Your task to perform on an android device: change the upload size in google photos Image 0: 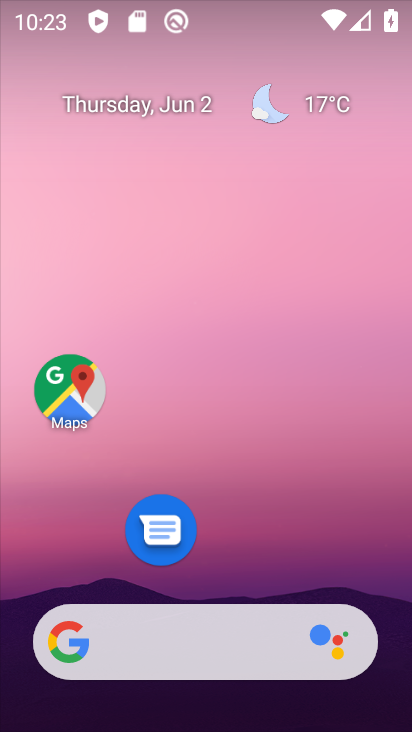
Step 0: click (253, 223)
Your task to perform on an android device: change the upload size in google photos Image 1: 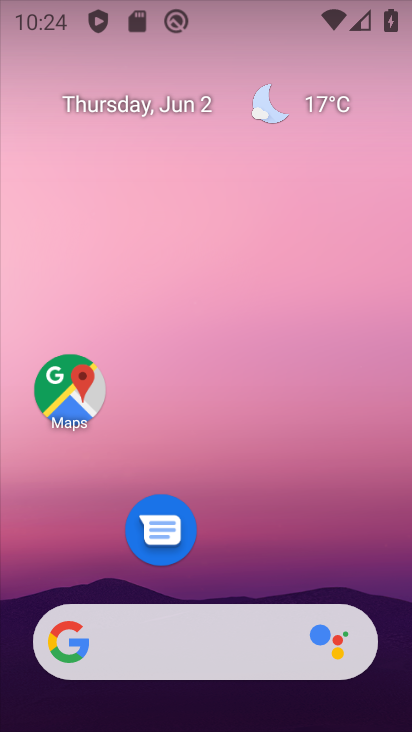
Step 1: drag from (238, 694) to (189, 95)
Your task to perform on an android device: change the upload size in google photos Image 2: 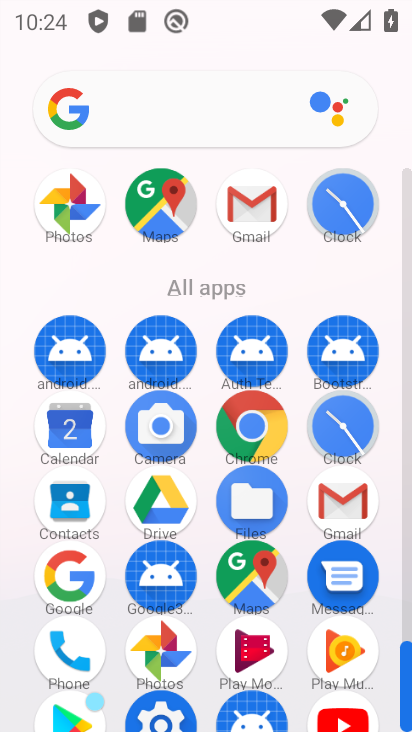
Step 2: click (61, 197)
Your task to perform on an android device: change the upload size in google photos Image 3: 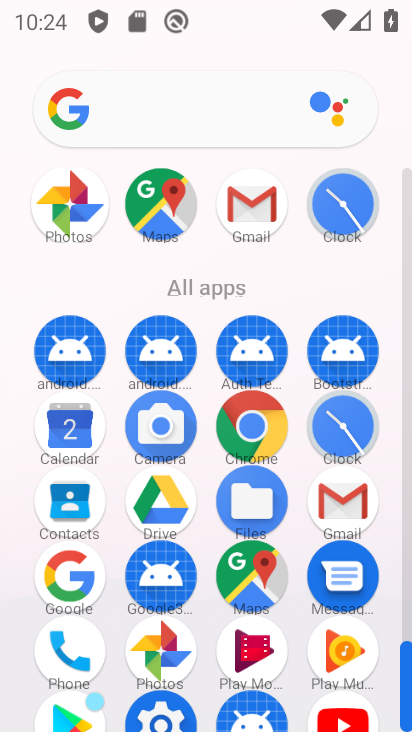
Step 3: drag from (61, 197) to (52, 232)
Your task to perform on an android device: change the upload size in google photos Image 4: 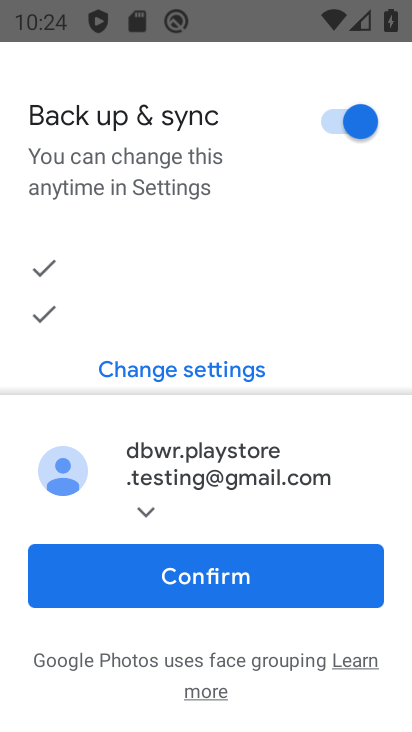
Step 4: click (244, 567)
Your task to perform on an android device: change the upload size in google photos Image 5: 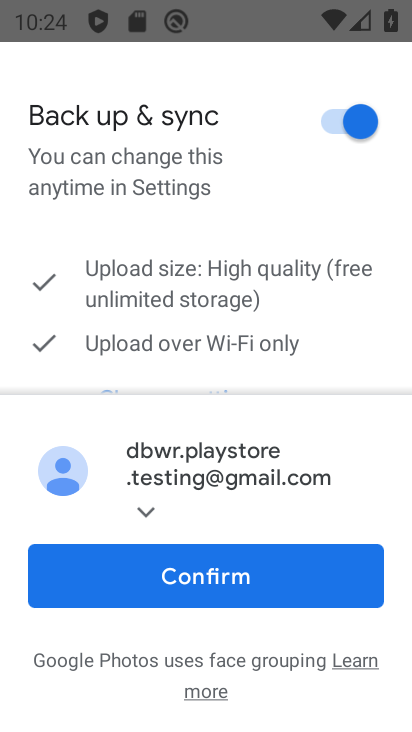
Step 5: click (238, 576)
Your task to perform on an android device: change the upload size in google photos Image 6: 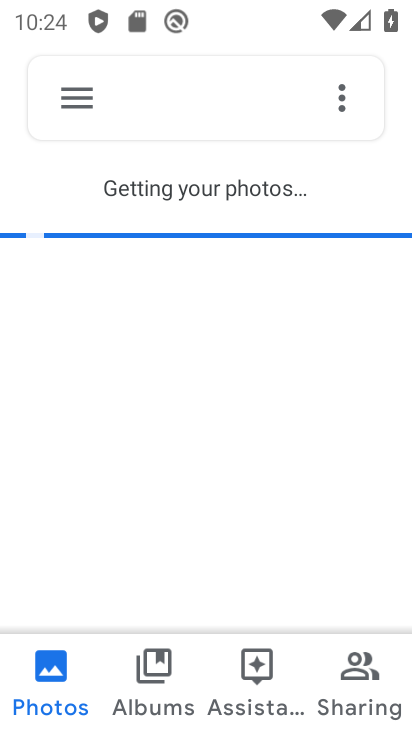
Step 6: click (217, 567)
Your task to perform on an android device: change the upload size in google photos Image 7: 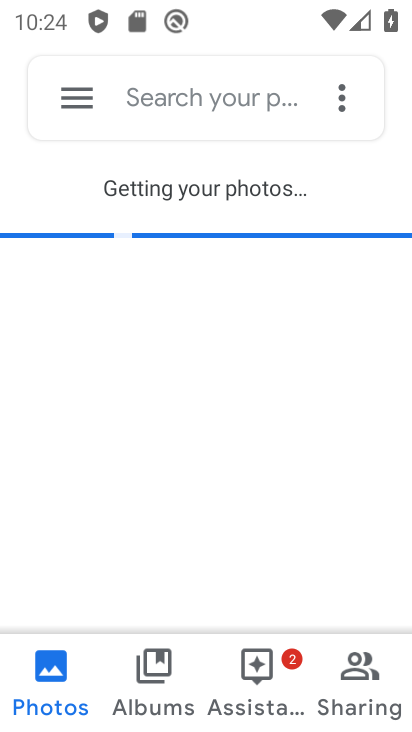
Step 7: click (79, 101)
Your task to perform on an android device: change the upload size in google photos Image 8: 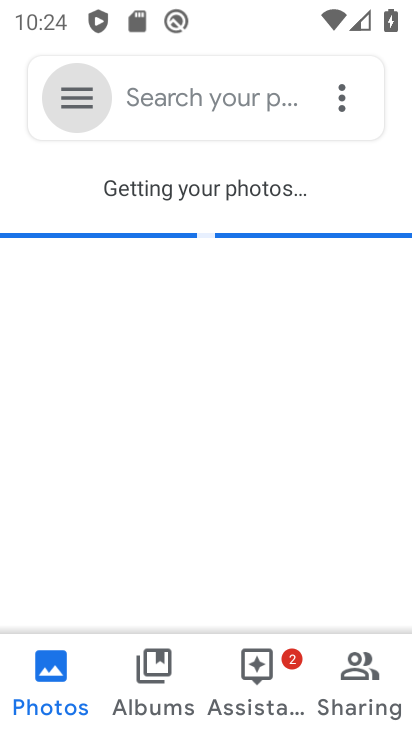
Step 8: click (80, 103)
Your task to perform on an android device: change the upload size in google photos Image 9: 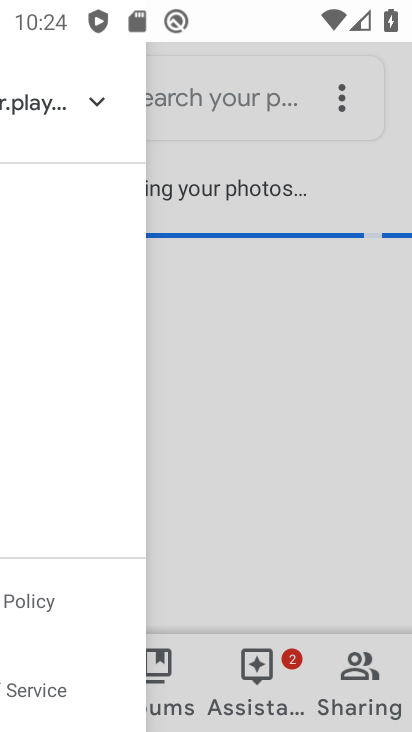
Step 9: drag from (80, 103) to (407, 520)
Your task to perform on an android device: change the upload size in google photos Image 10: 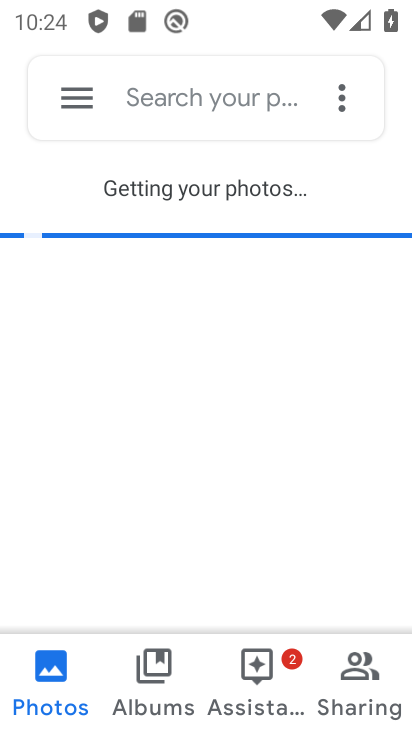
Step 10: click (76, 104)
Your task to perform on an android device: change the upload size in google photos Image 11: 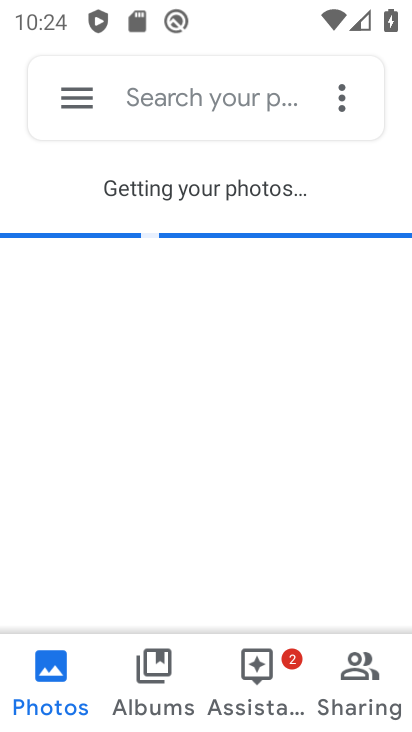
Step 11: click (80, 99)
Your task to perform on an android device: change the upload size in google photos Image 12: 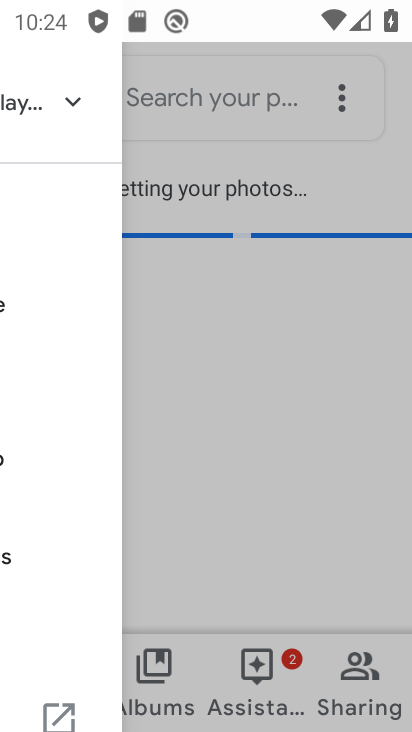
Step 12: click (81, 95)
Your task to perform on an android device: change the upload size in google photos Image 13: 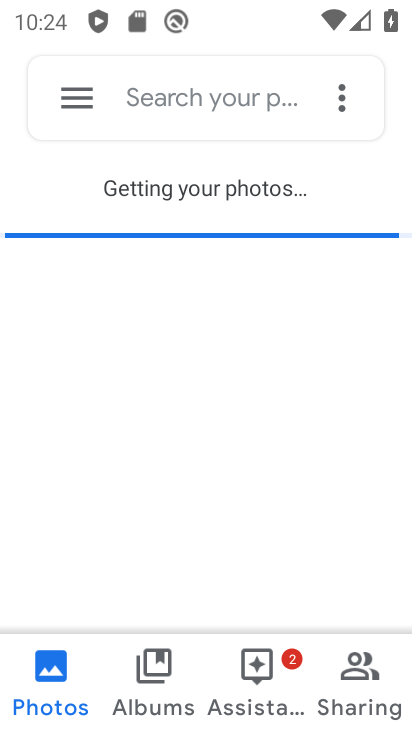
Step 13: click (86, 89)
Your task to perform on an android device: change the upload size in google photos Image 14: 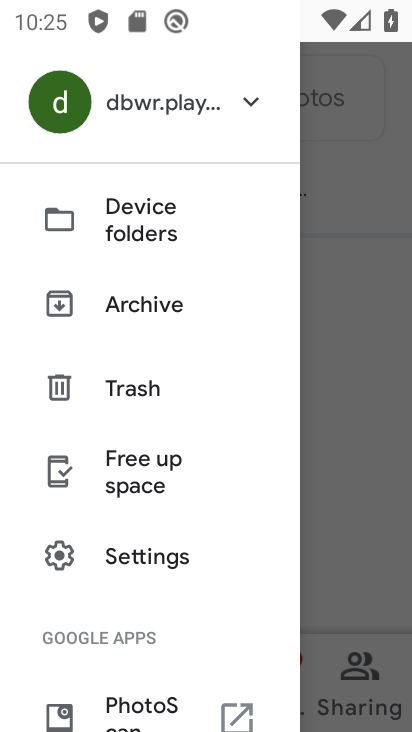
Step 14: click (78, 95)
Your task to perform on an android device: change the upload size in google photos Image 15: 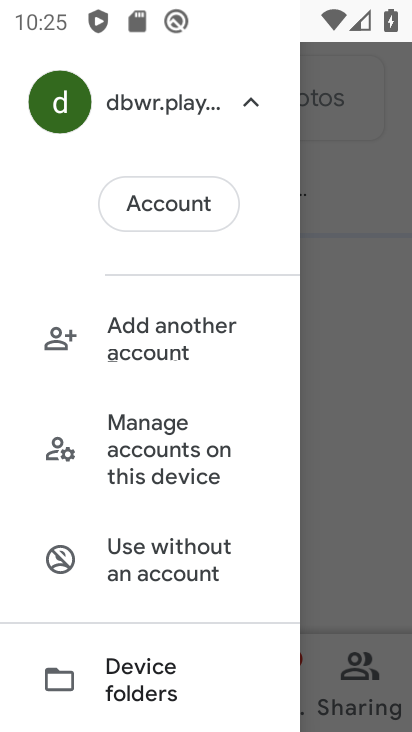
Step 15: drag from (202, 266) to (235, 509)
Your task to perform on an android device: change the upload size in google photos Image 16: 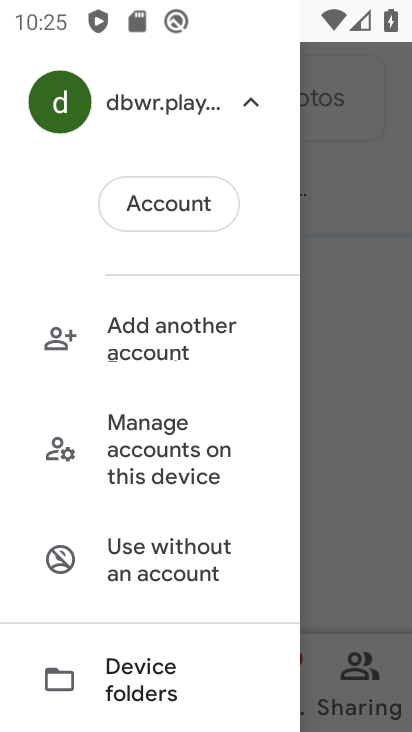
Step 16: drag from (235, 338) to (267, 544)
Your task to perform on an android device: change the upload size in google photos Image 17: 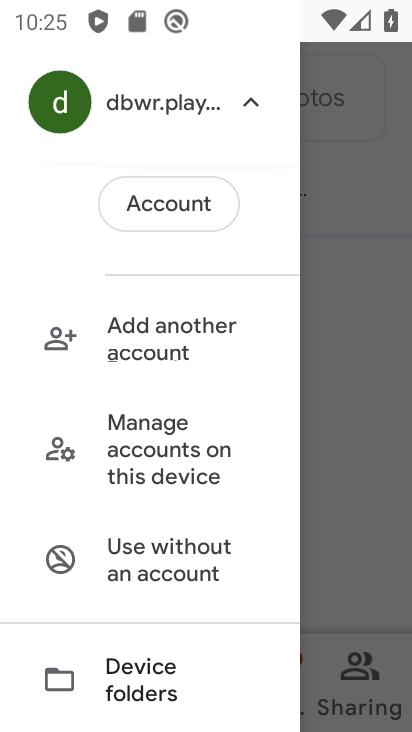
Step 17: drag from (178, 516) to (176, 109)
Your task to perform on an android device: change the upload size in google photos Image 18: 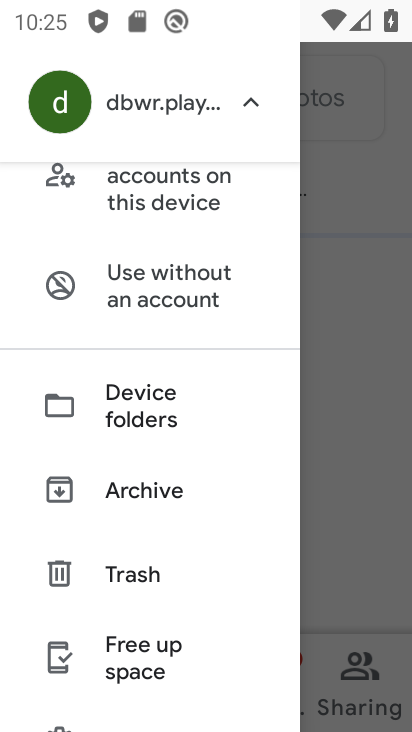
Step 18: drag from (172, 389) to (185, 92)
Your task to perform on an android device: change the upload size in google photos Image 19: 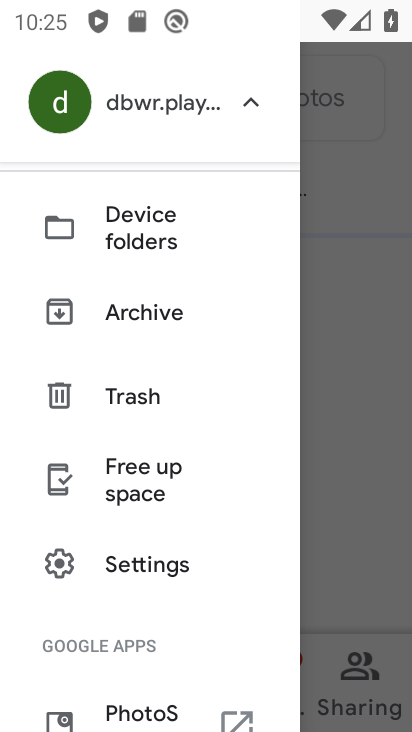
Step 19: click (132, 558)
Your task to perform on an android device: change the upload size in google photos Image 20: 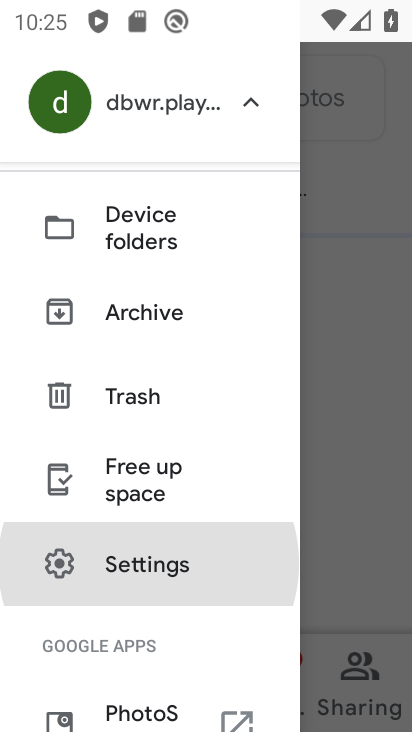
Step 20: click (135, 557)
Your task to perform on an android device: change the upload size in google photos Image 21: 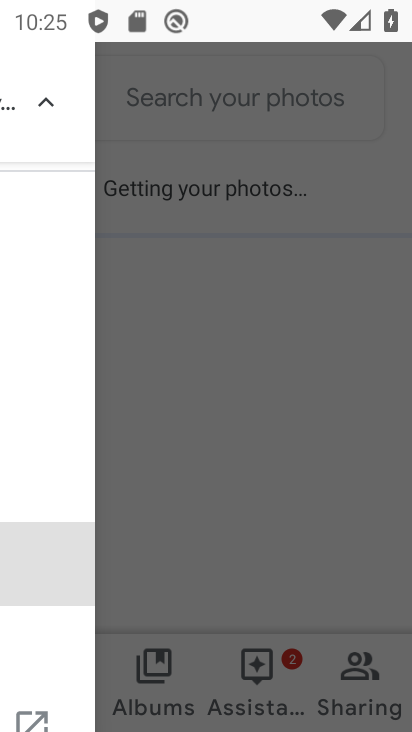
Step 21: click (135, 557)
Your task to perform on an android device: change the upload size in google photos Image 22: 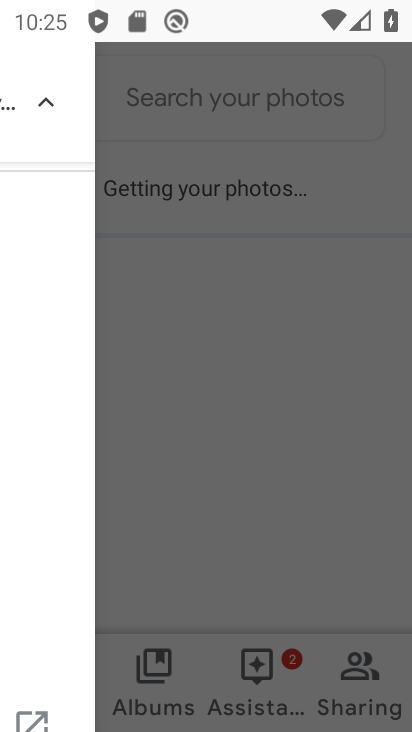
Step 22: click (136, 558)
Your task to perform on an android device: change the upload size in google photos Image 23: 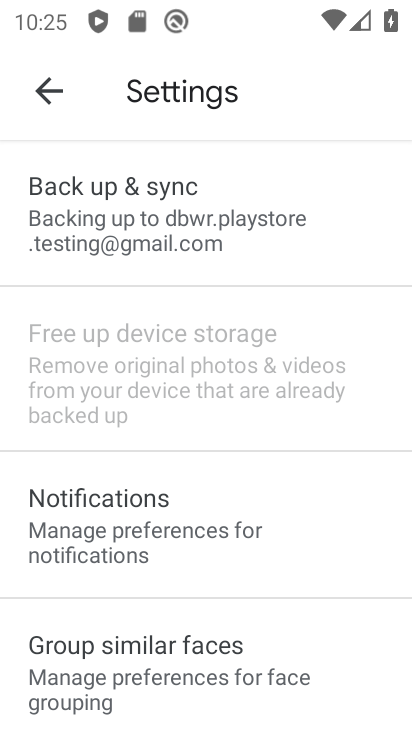
Step 23: click (123, 219)
Your task to perform on an android device: change the upload size in google photos Image 24: 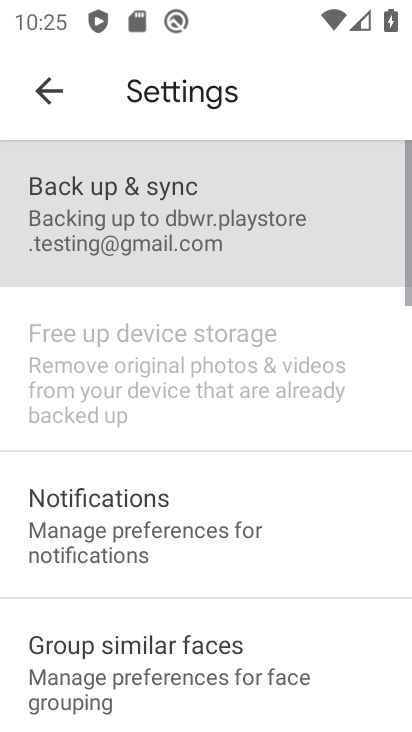
Step 24: click (130, 211)
Your task to perform on an android device: change the upload size in google photos Image 25: 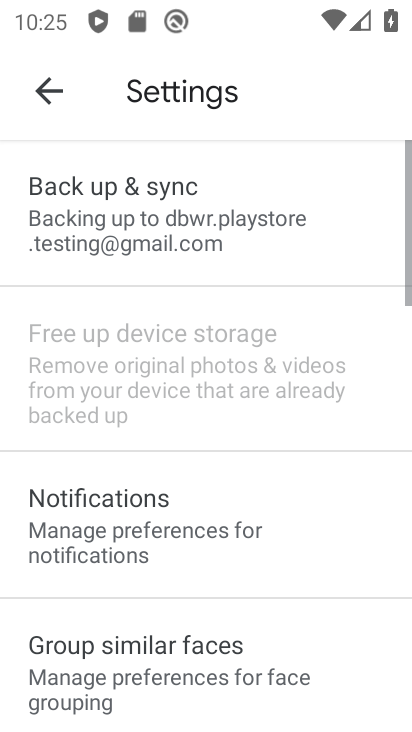
Step 25: click (133, 209)
Your task to perform on an android device: change the upload size in google photos Image 26: 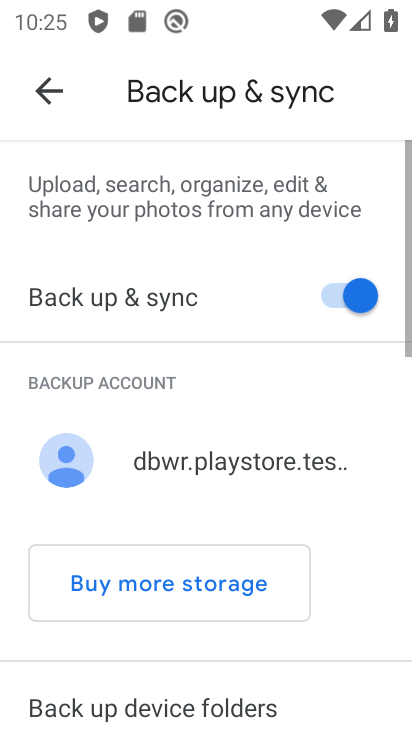
Step 26: drag from (160, 513) to (161, 187)
Your task to perform on an android device: change the upload size in google photos Image 27: 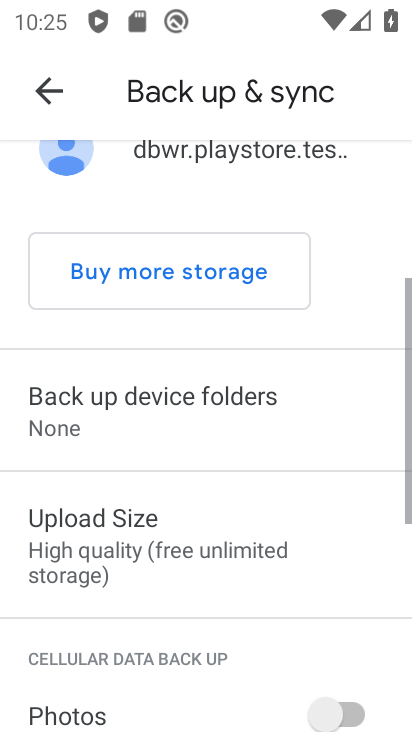
Step 27: drag from (187, 424) to (174, 223)
Your task to perform on an android device: change the upload size in google photos Image 28: 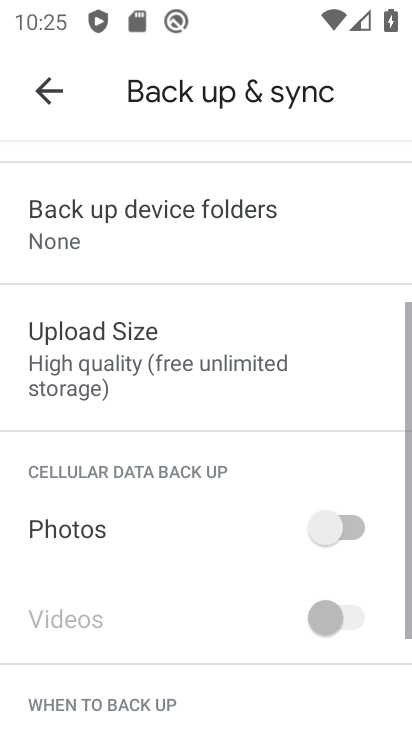
Step 28: drag from (145, 519) to (133, 340)
Your task to perform on an android device: change the upload size in google photos Image 29: 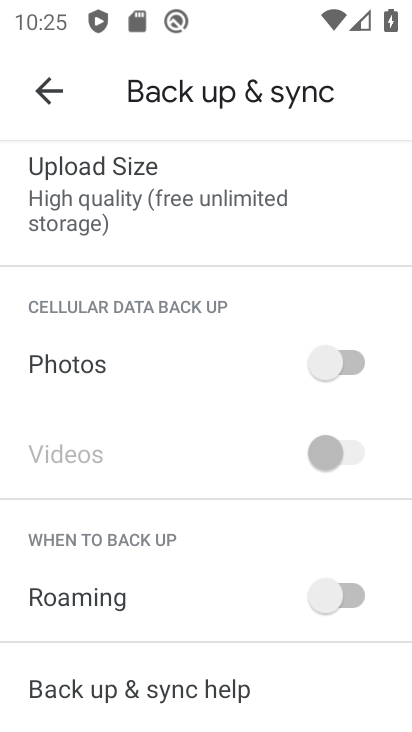
Step 29: click (101, 181)
Your task to perform on an android device: change the upload size in google photos Image 30: 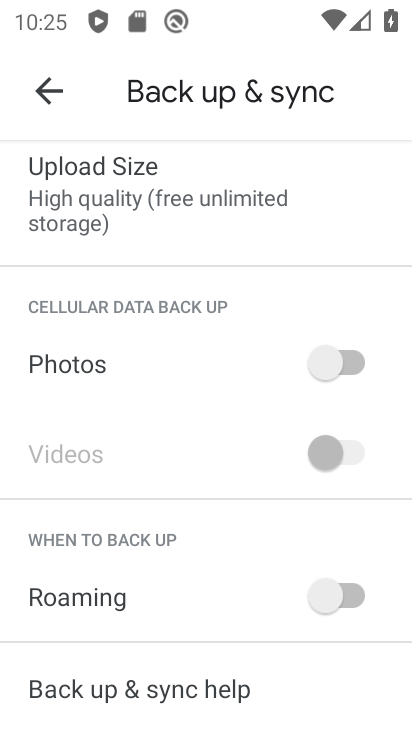
Step 30: click (101, 181)
Your task to perform on an android device: change the upload size in google photos Image 31: 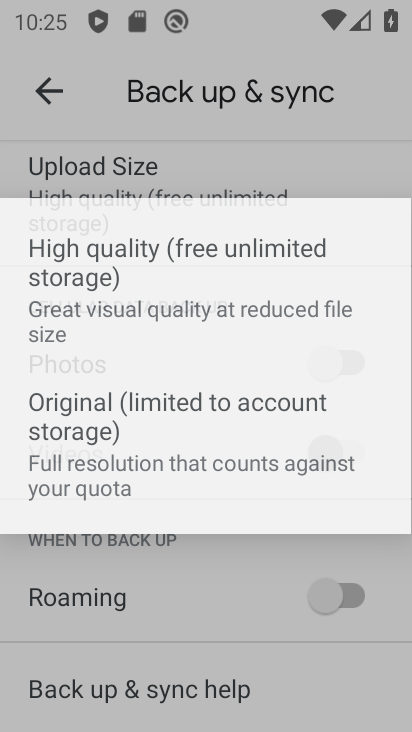
Step 31: click (101, 181)
Your task to perform on an android device: change the upload size in google photos Image 32: 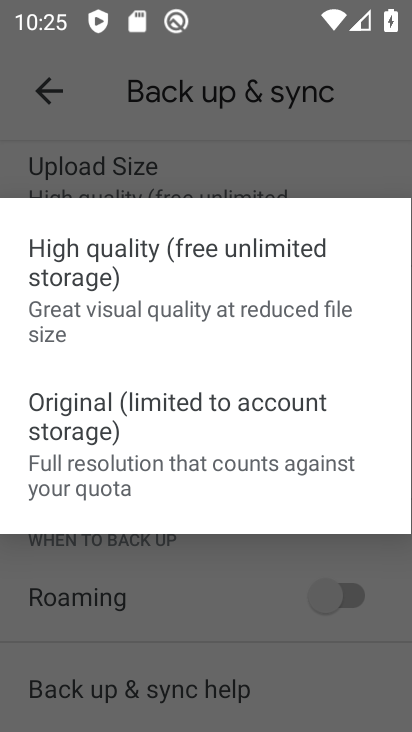
Step 32: click (101, 181)
Your task to perform on an android device: change the upload size in google photos Image 33: 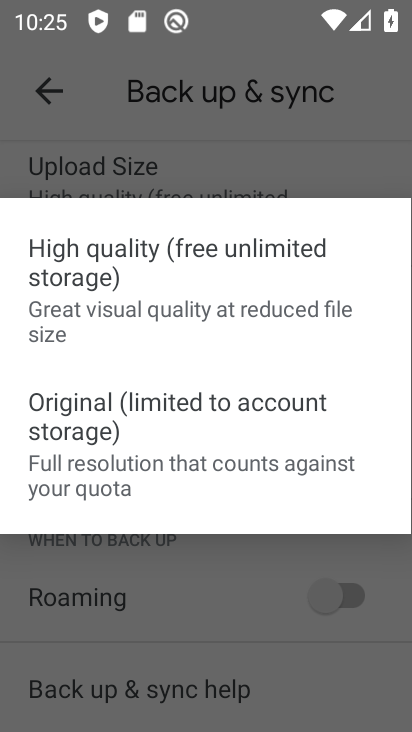
Step 33: click (74, 259)
Your task to perform on an android device: change the upload size in google photos Image 34: 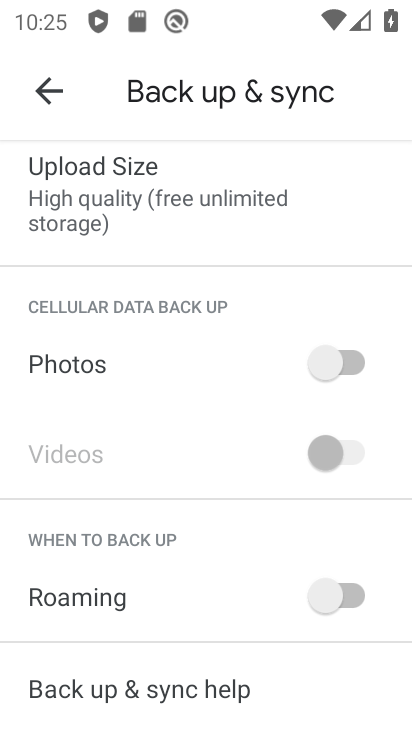
Step 34: task complete